Your task to perform on an android device: Open Google Image 0: 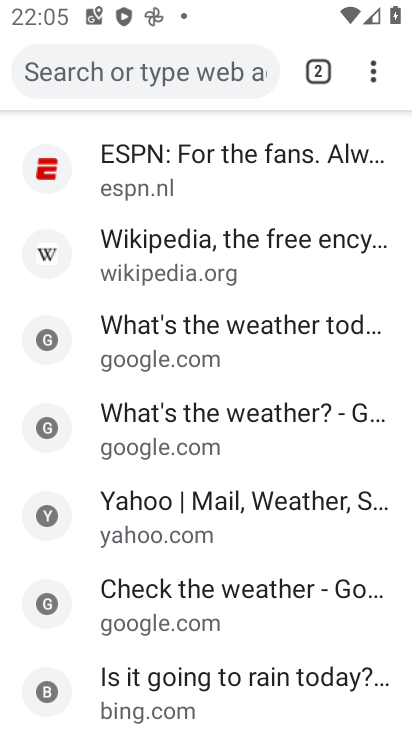
Step 0: press home button
Your task to perform on an android device: Open Google Image 1: 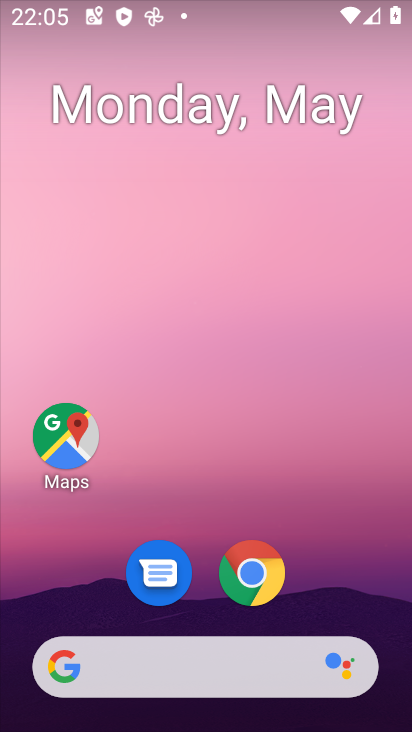
Step 1: click (227, 571)
Your task to perform on an android device: Open Google Image 2: 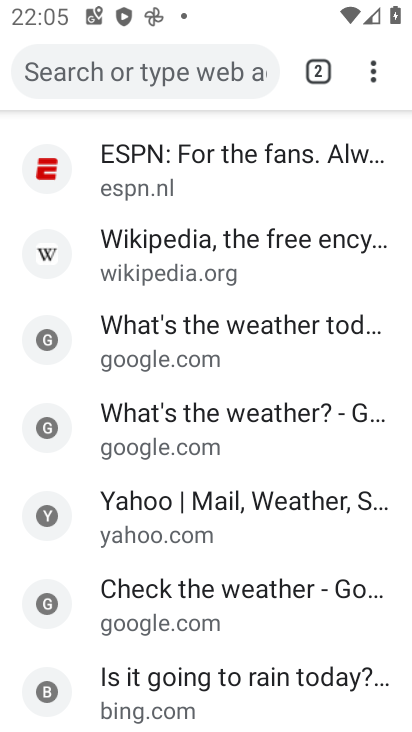
Step 2: task complete